Your task to perform on an android device: turn off priority inbox in the gmail app Image 0: 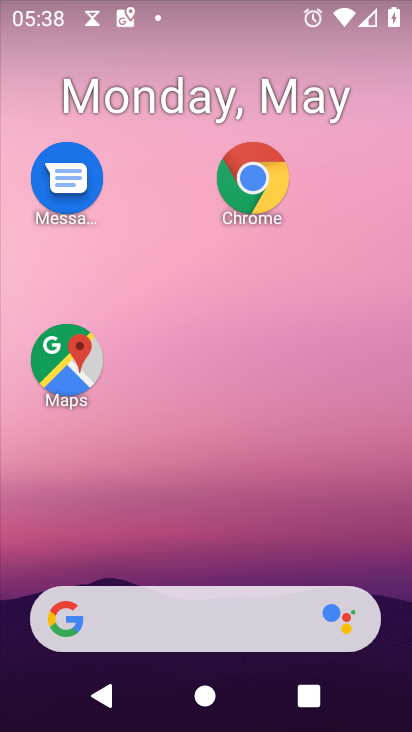
Step 0: drag from (193, 529) to (173, 0)
Your task to perform on an android device: turn off priority inbox in the gmail app Image 1: 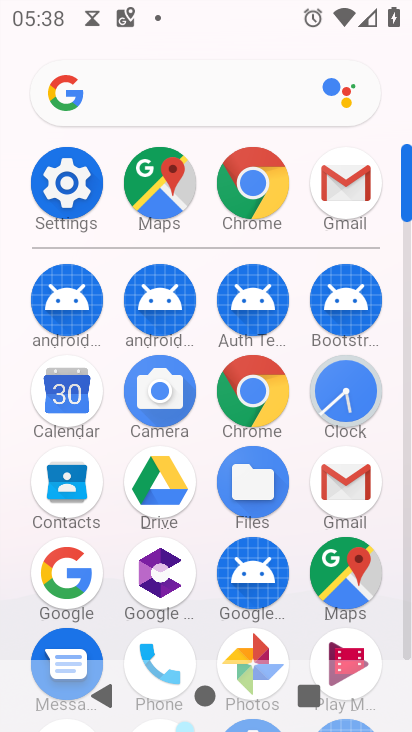
Step 1: click (345, 502)
Your task to perform on an android device: turn off priority inbox in the gmail app Image 2: 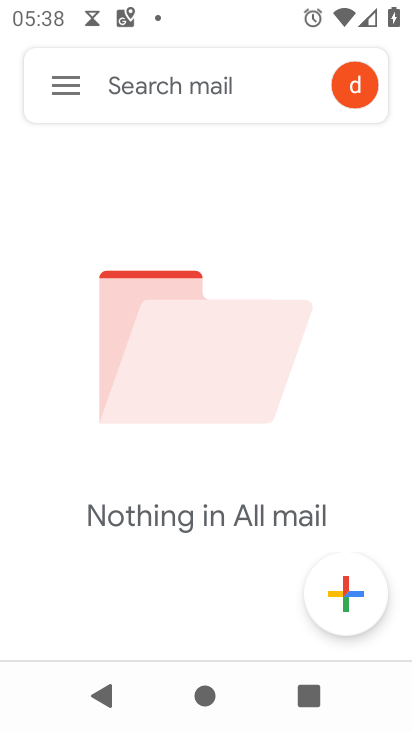
Step 2: click (74, 84)
Your task to perform on an android device: turn off priority inbox in the gmail app Image 3: 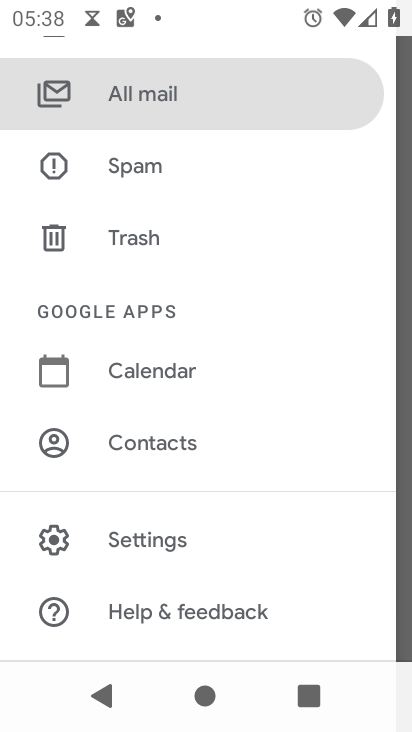
Step 3: click (132, 533)
Your task to perform on an android device: turn off priority inbox in the gmail app Image 4: 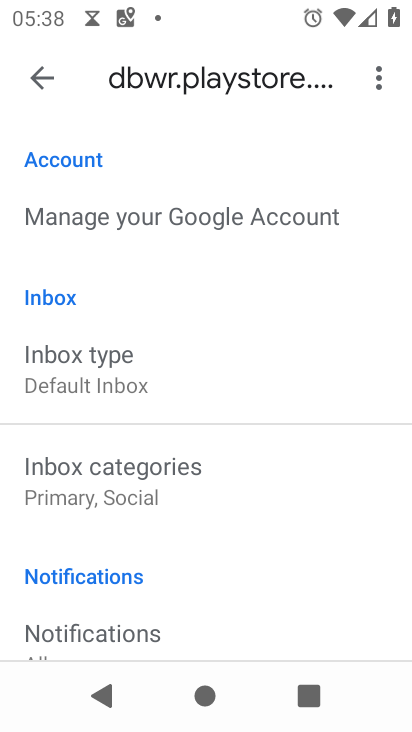
Step 4: drag from (139, 549) to (137, 293)
Your task to perform on an android device: turn off priority inbox in the gmail app Image 5: 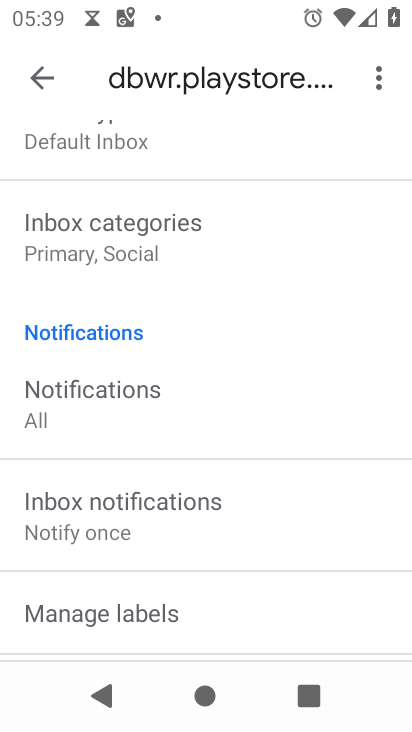
Step 5: drag from (150, 300) to (149, 602)
Your task to perform on an android device: turn off priority inbox in the gmail app Image 6: 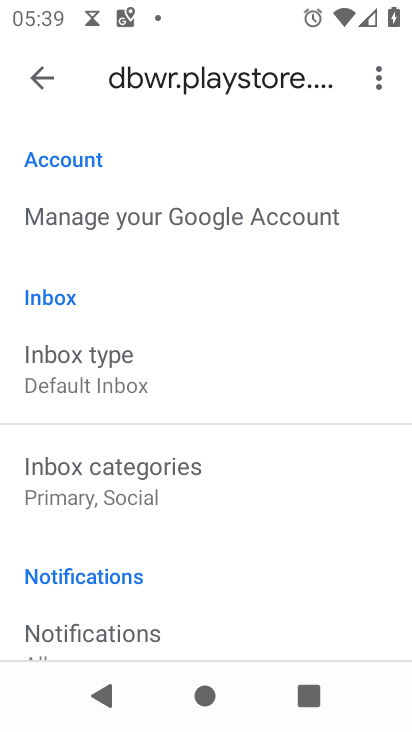
Step 6: click (55, 378)
Your task to perform on an android device: turn off priority inbox in the gmail app Image 7: 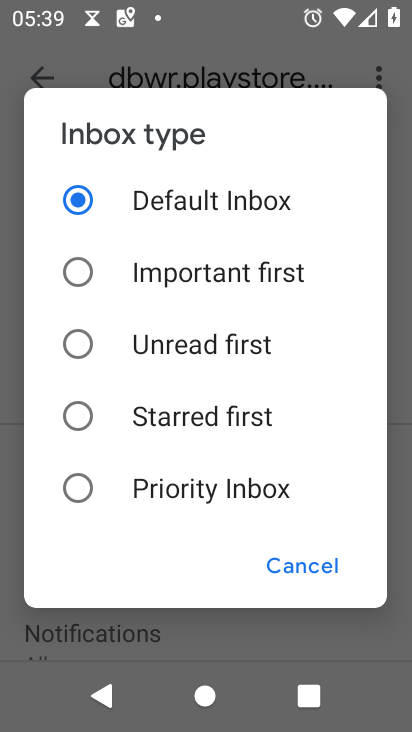
Step 7: click (65, 509)
Your task to perform on an android device: turn off priority inbox in the gmail app Image 8: 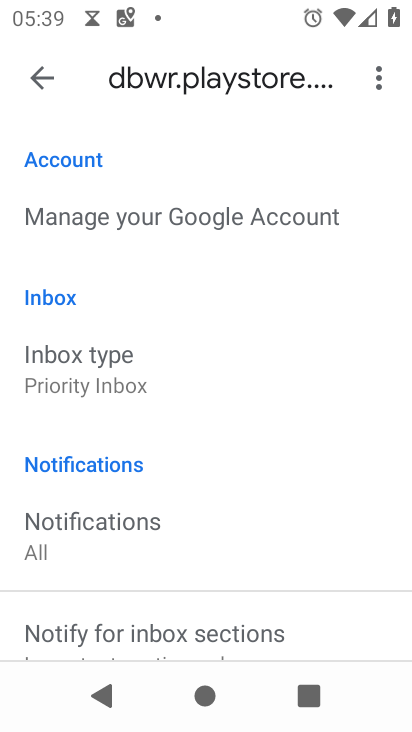
Step 8: click (84, 401)
Your task to perform on an android device: turn off priority inbox in the gmail app Image 9: 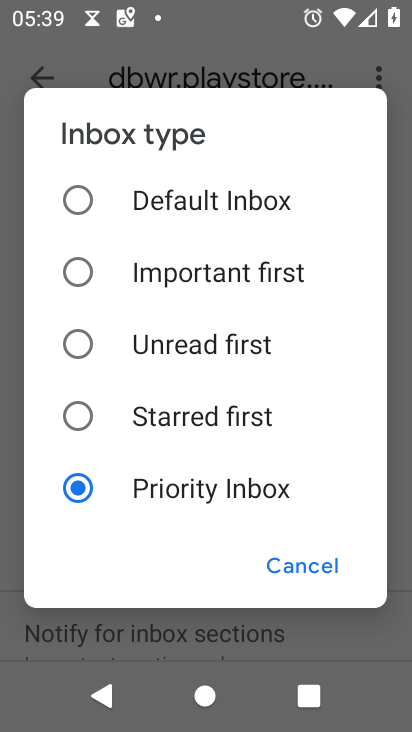
Step 9: click (84, 398)
Your task to perform on an android device: turn off priority inbox in the gmail app Image 10: 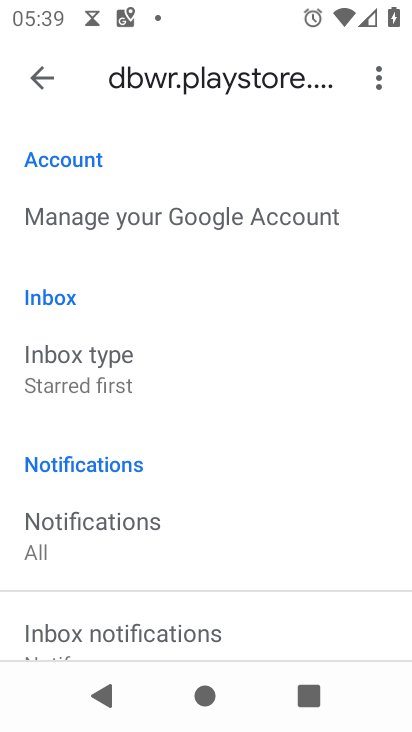
Step 10: task complete